Your task to perform on an android device: Open calendar and show me the fourth week of next month Image 0: 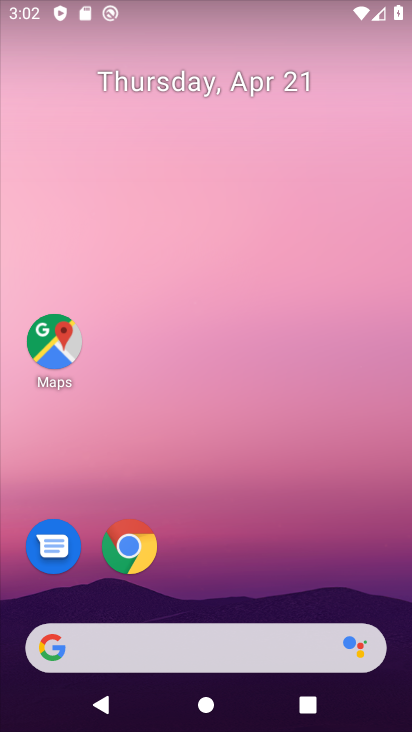
Step 0: drag from (342, 557) to (384, 62)
Your task to perform on an android device: Open calendar and show me the fourth week of next month Image 1: 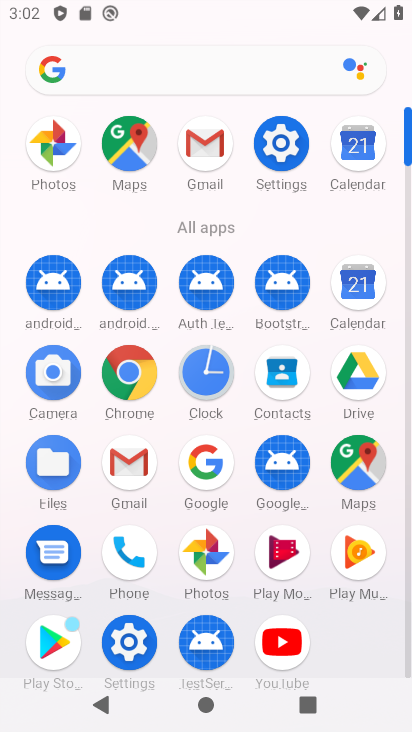
Step 1: click (360, 278)
Your task to perform on an android device: Open calendar and show me the fourth week of next month Image 2: 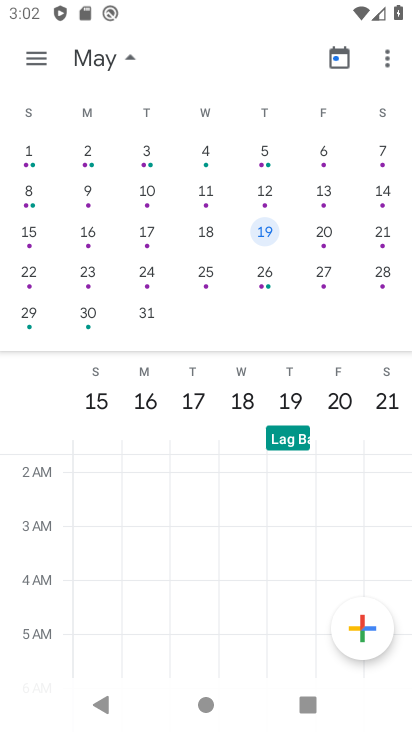
Step 2: click (31, 63)
Your task to perform on an android device: Open calendar and show me the fourth week of next month Image 3: 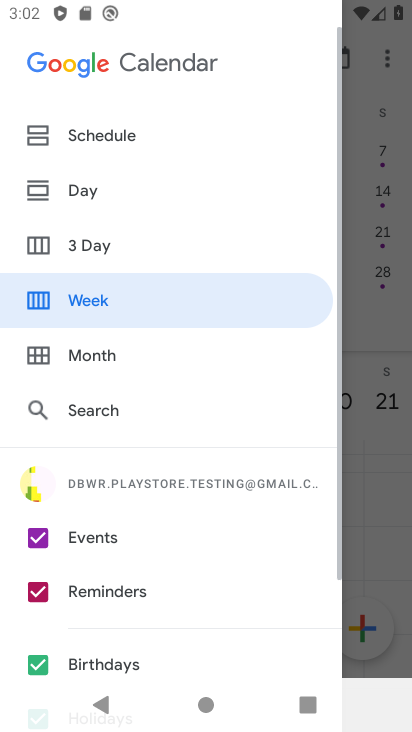
Step 3: click (288, 297)
Your task to perform on an android device: Open calendar and show me the fourth week of next month Image 4: 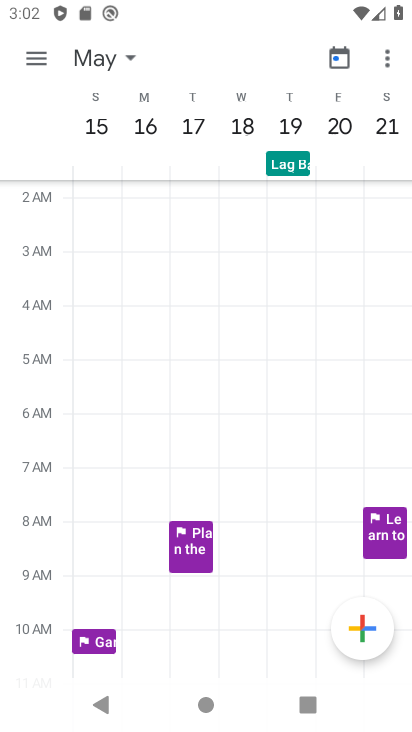
Step 4: click (123, 59)
Your task to perform on an android device: Open calendar and show me the fourth week of next month Image 5: 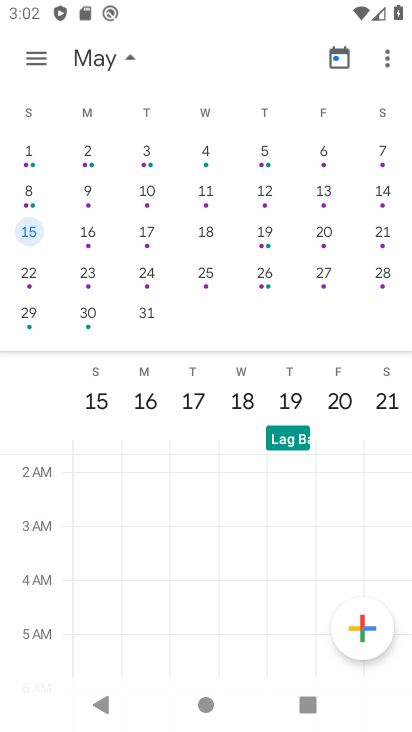
Step 5: click (383, 279)
Your task to perform on an android device: Open calendar and show me the fourth week of next month Image 6: 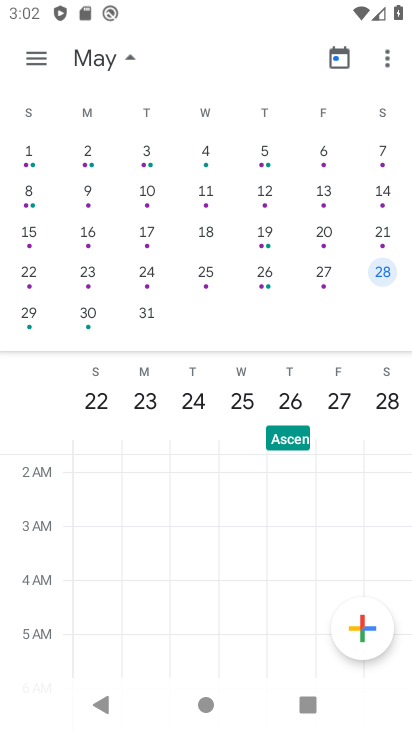
Step 6: task complete